Your task to perform on an android device: empty trash in the gmail app Image 0: 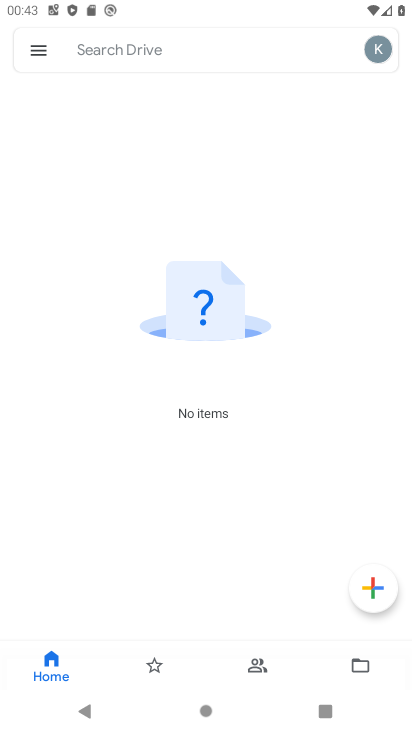
Step 0: press home button
Your task to perform on an android device: empty trash in the gmail app Image 1: 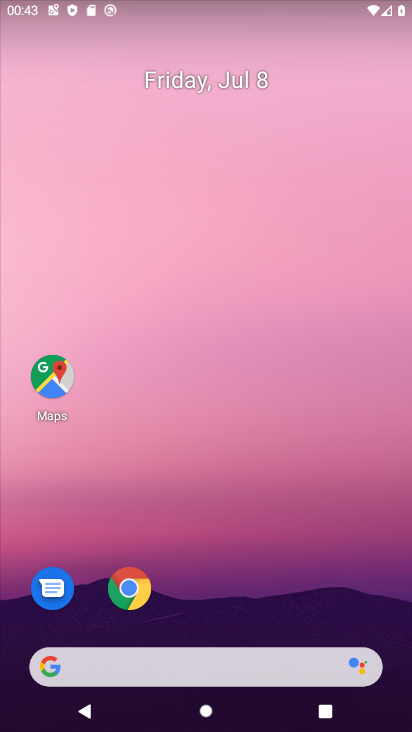
Step 1: drag from (213, 605) to (222, 148)
Your task to perform on an android device: empty trash in the gmail app Image 2: 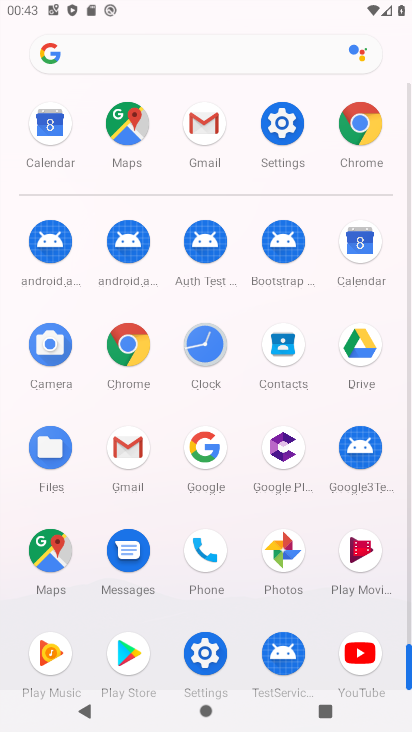
Step 2: click (128, 445)
Your task to perform on an android device: empty trash in the gmail app Image 3: 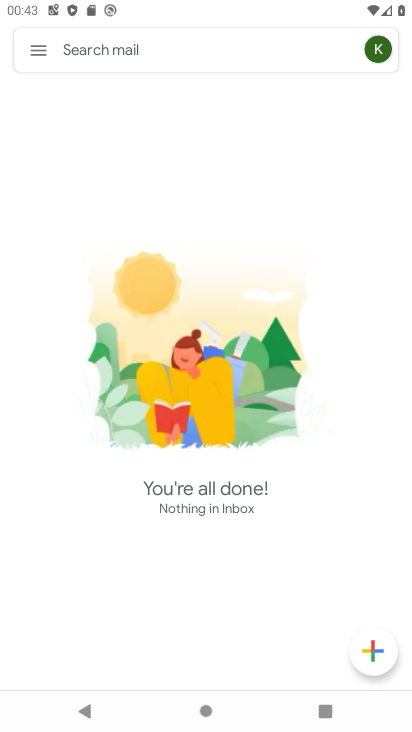
Step 3: click (43, 53)
Your task to perform on an android device: empty trash in the gmail app Image 4: 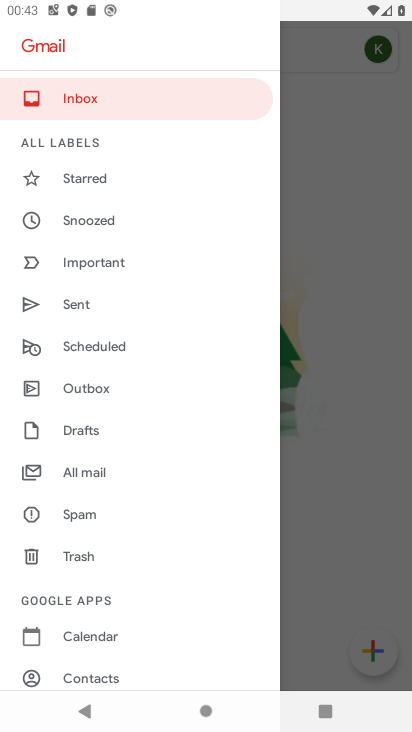
Step 4: click (88, 550)
Your task to perform on an android device: empty trash in the gmail app Image 5: 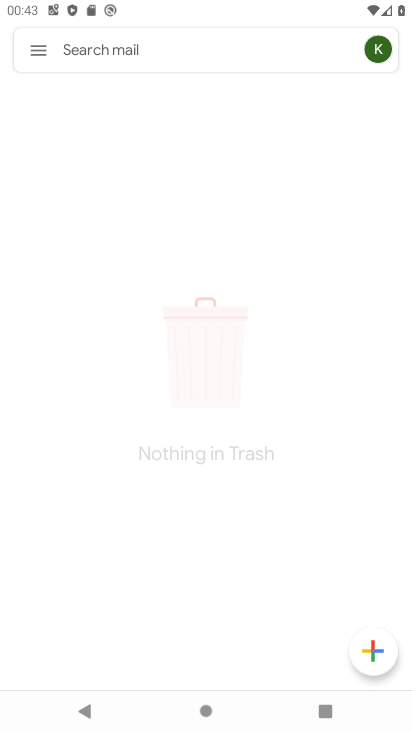
Step 5: task complete